Your task to perform on an android device: turn off improve location accuracy Image 0: 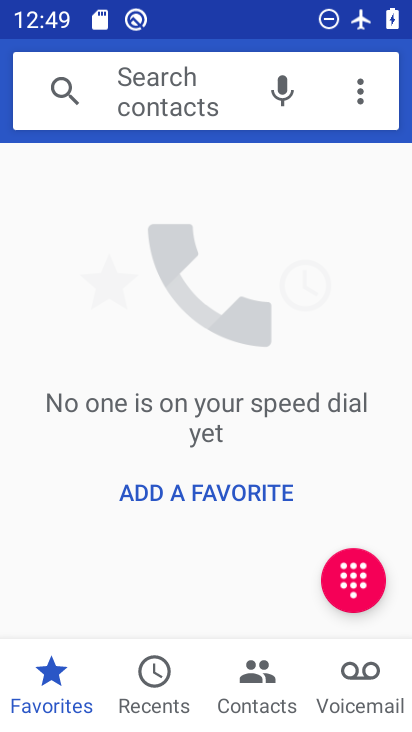
Step 0: press home button
Your task to perform on an android device: turn off improve location accuracy Image 1: 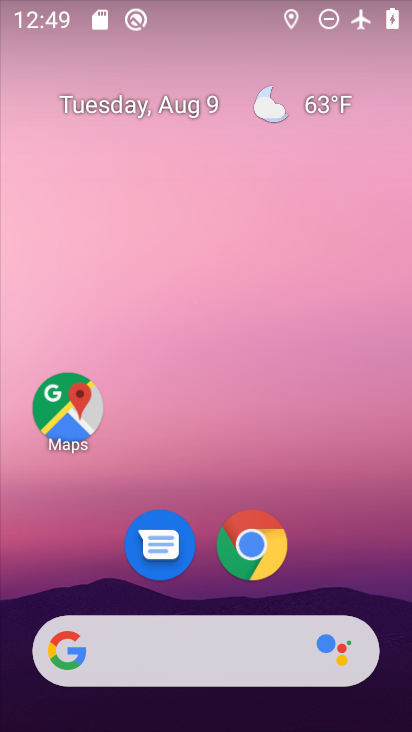
Step 1: drag from (189, 657) to (230, 136)
Your task to perform on an android device: turn off improve location accuracy Image 2: 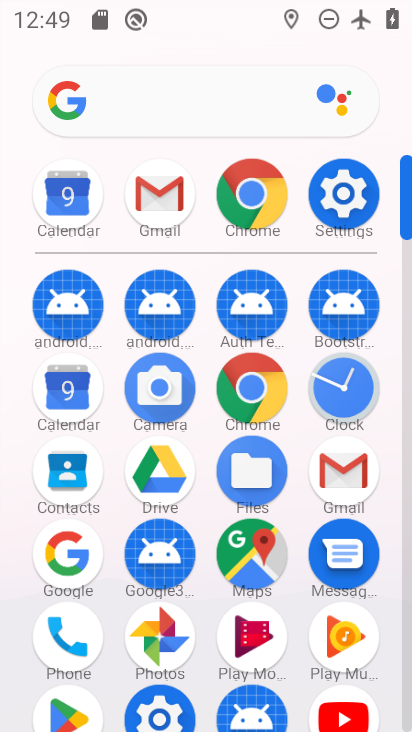
Step 2: click (345, 193)
Your task to perform on an android device: turn off improve location accuracy Image 3: 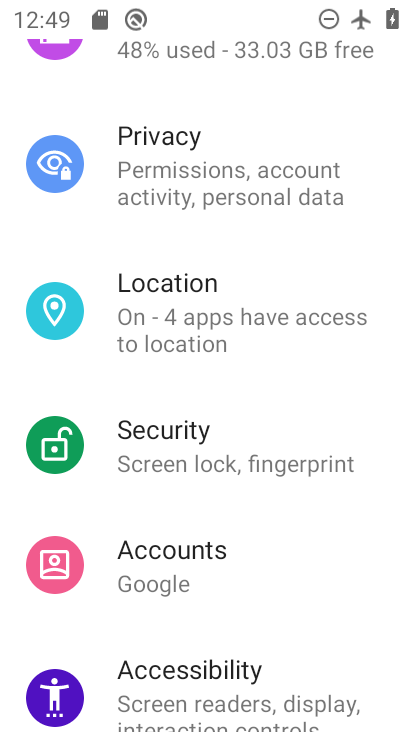
Step 3: drag from (186, 626) to (241, 373)
Your task to perform on an android device: turn off improve location accuracy Image 4: 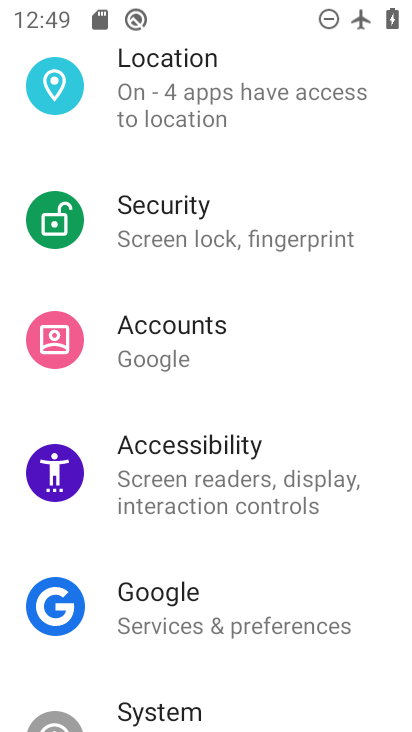
Step 4: click (189, 84)
Your task to perform on an android device: turn off improve location accuracy Image 5: 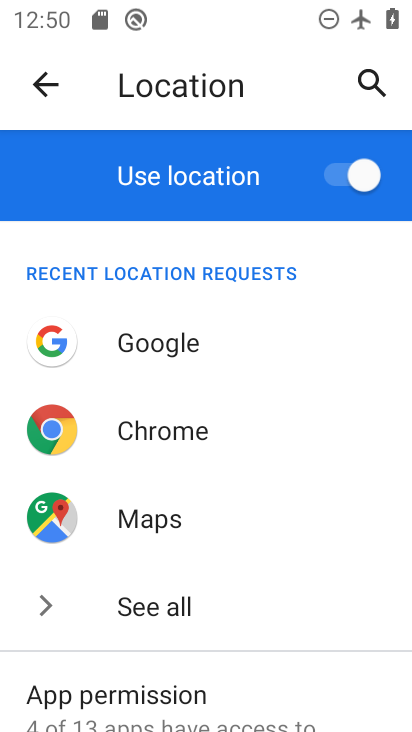
Step 5: drag from (223, 673) to (307, 485)
Your task to perform on an android device: turn off improve location accuracy Image 6: 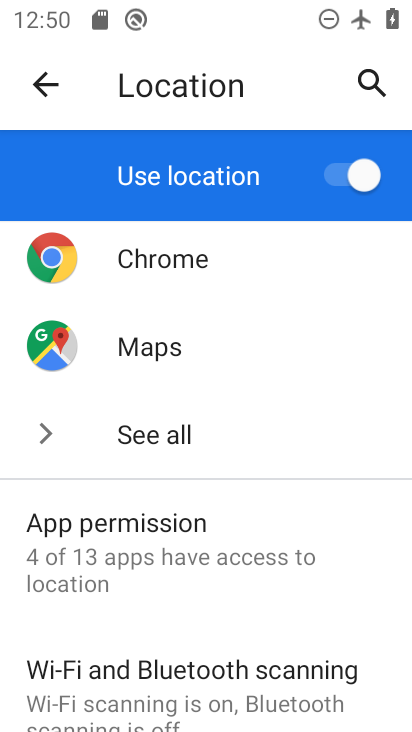
Step 6: drag from (164, 632) to (235, 445)
Your task to perform on an android device: turn off improve location accuracy Image 7: 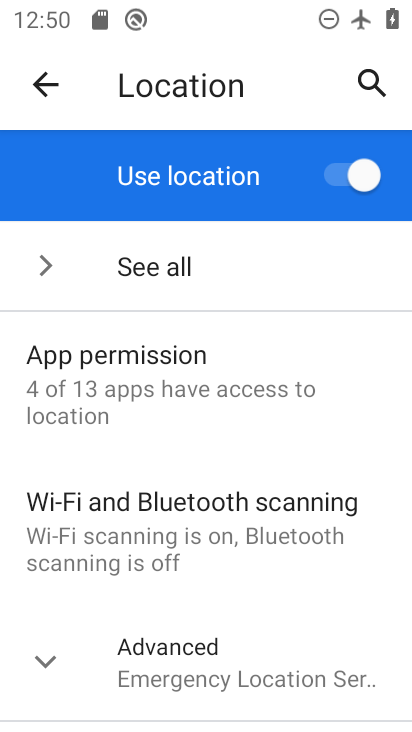
Step 7: click (204, 678)
Your task to perform on an android device: turn off improve location accuracy Image 8: 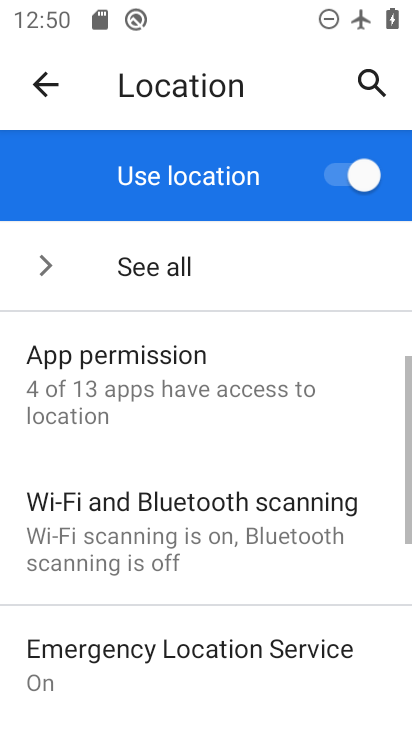
Step 8: drag from (204, 678) to (283, 427)
Your task to perform on an android device: turn off improve location accuracy Image 9: 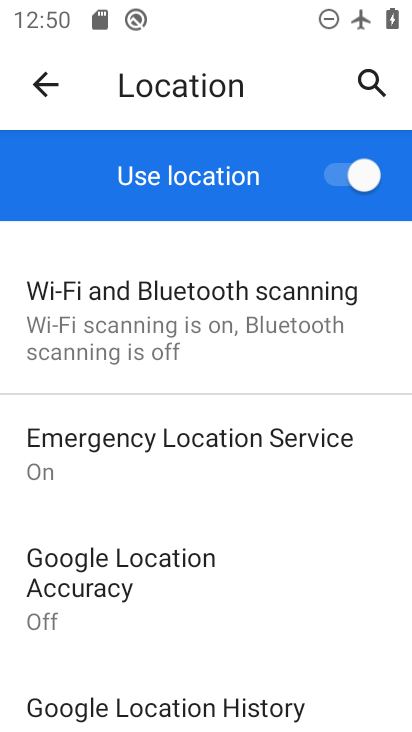
Step 9: click (182, 565)
Your task to perform on an android device: turn off improve location accuracy Image 10: 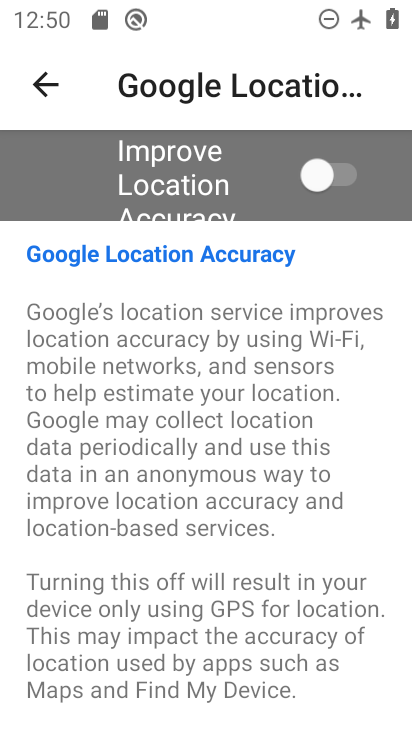
Step 10: task complete